Your task to perform on an android device: all mails in gmail Image 0: 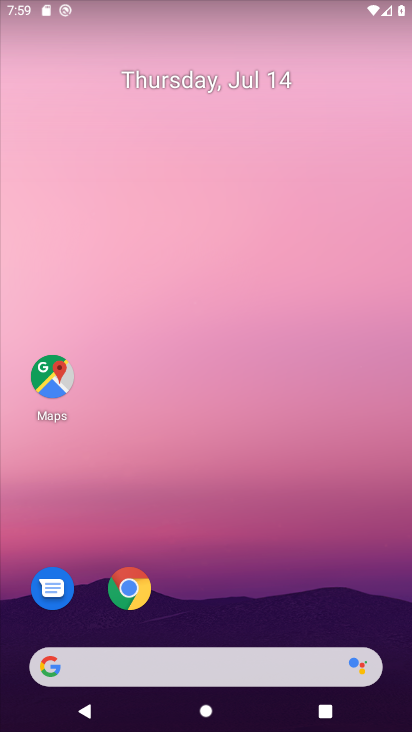
Step 0: drag from (363, 608) to (364, 66)
Your task to perform on an android device: all mails in gmail Image 1: 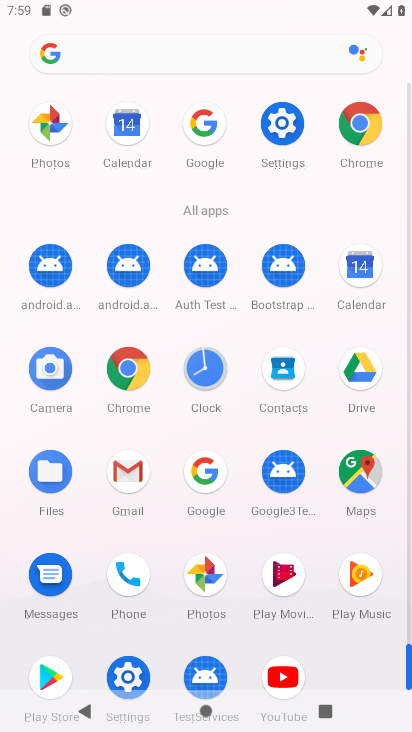
Step 1: click (137, 467)
Your task to perform on an android device: all mails in gmail Image 2: 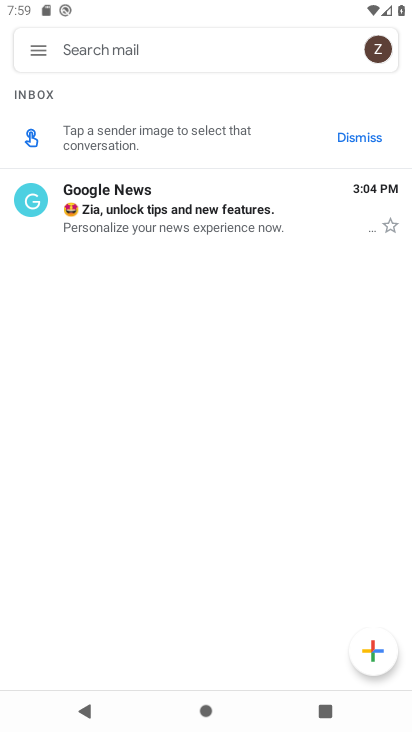
Step 2: click (37, 50)
Your task to perform on an android device: all mails in gmail Image 3: 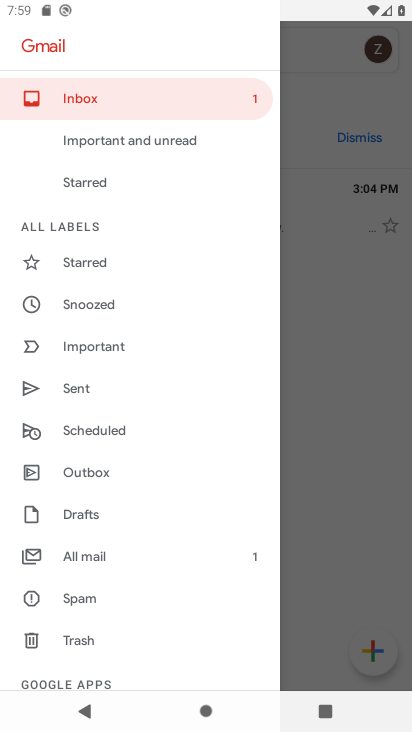
Step 3: drag from (187, 363) to (200, 294)
Your task to perform on an android device: all mails in gmail Image 4: 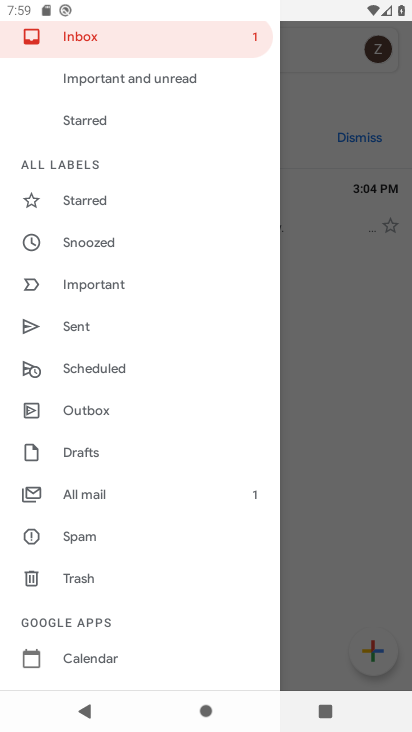
Step 4: drag from (205, 408) to (218, 329)
Your task to perform on an android device: all mails in gmail Image 5: 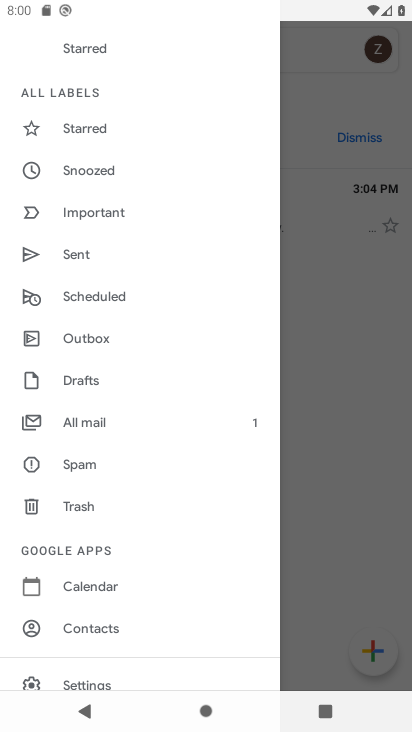
Step 5: drag from (198, 410) to (198, 323)
Your task to perform on an android device: all mails in gmail Image 6: 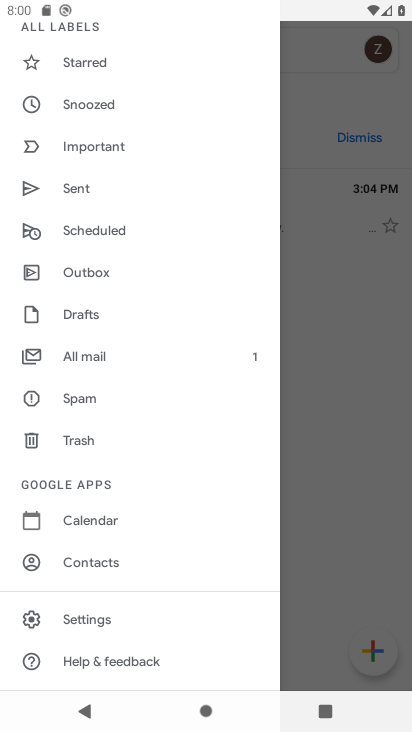
Step 6: drag from (200, 432) to (205, 310)
Your task to perform on an android device: all mails in gmail Image 7: 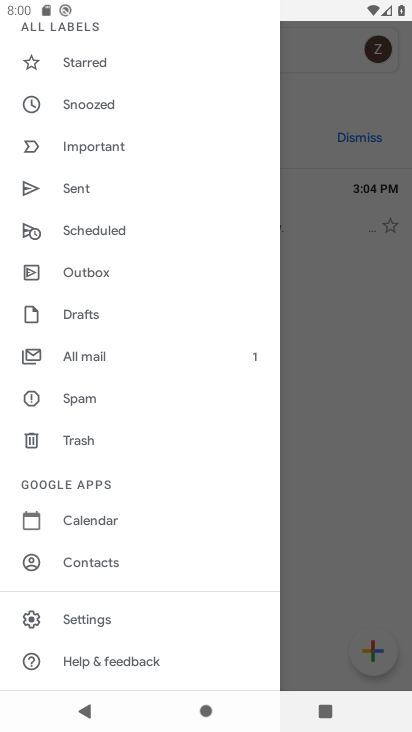
Step 7: click (144, 359)
Your task to perform on an android device: all mails in gmail Image 8: 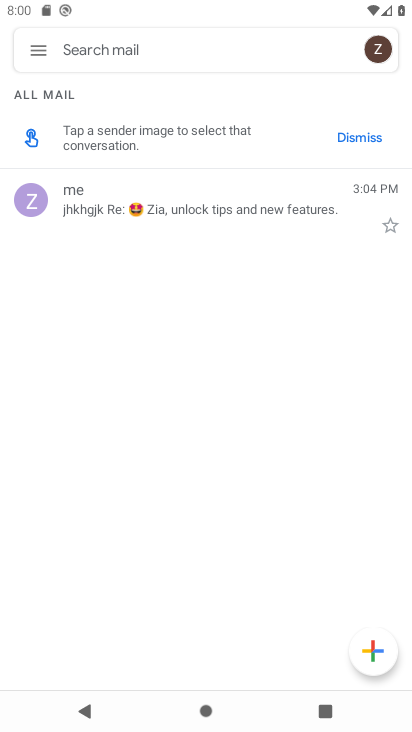
Step 8: task complete